Your task to perform on an android device: change keyboard looks Image 0: 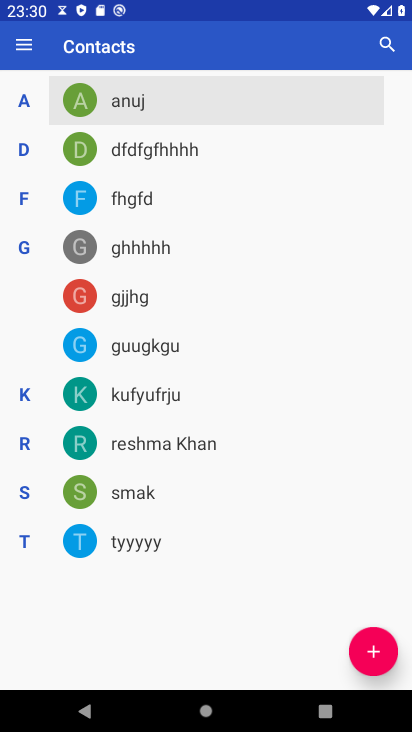
Step 0: press home button
Your task to perform on an android device: change keyboard looks Image 1: 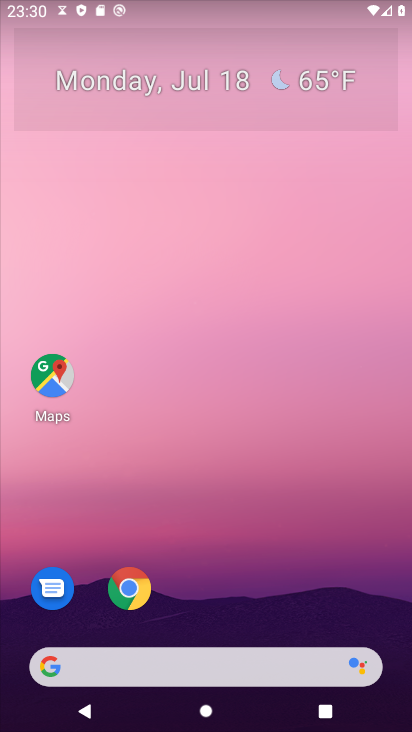
Step 1: drag from (253, 539) to (288, 0)
Your task to perform on an android device: change keyboard looks Image 2: 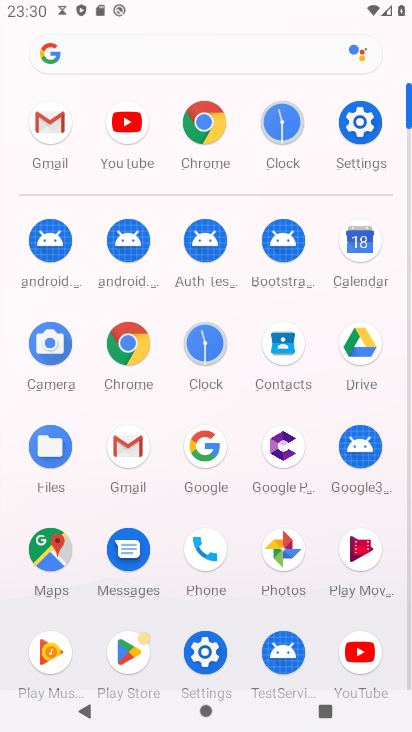
Step 2: click (369, 115)
Your task to perform on an android device: change keyboard looks Image 3: 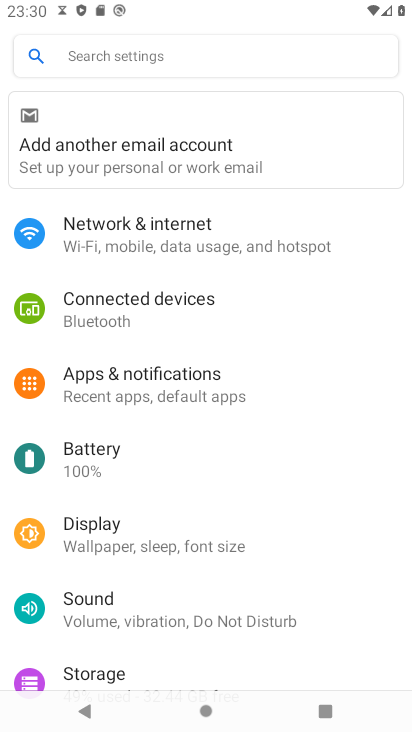
Step 3: drag from (151, 648) to (280, 136)
Your task to perform on an android device: change keyboard looks Image 4: 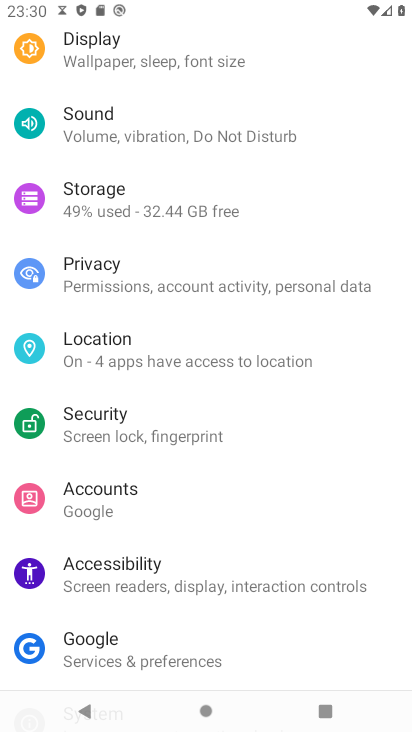
Step 4: drag from (161, 614) to (233, 79)
Your task to perform on an android device: change keyboard looks Image 5: 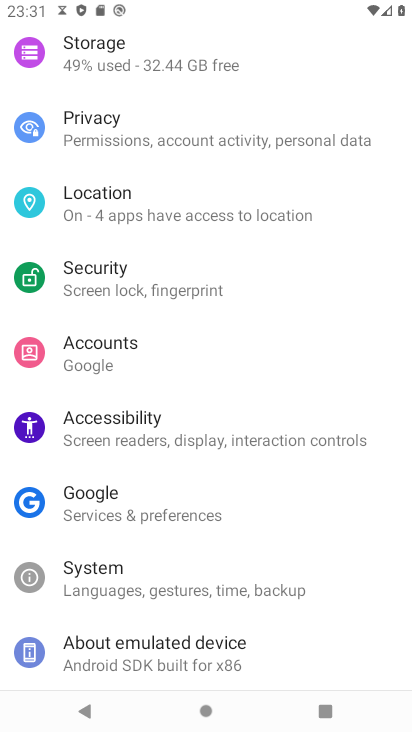
Step 5: click (138, 589)
Your task to perform on an android device: change keyboard looks Image 6: 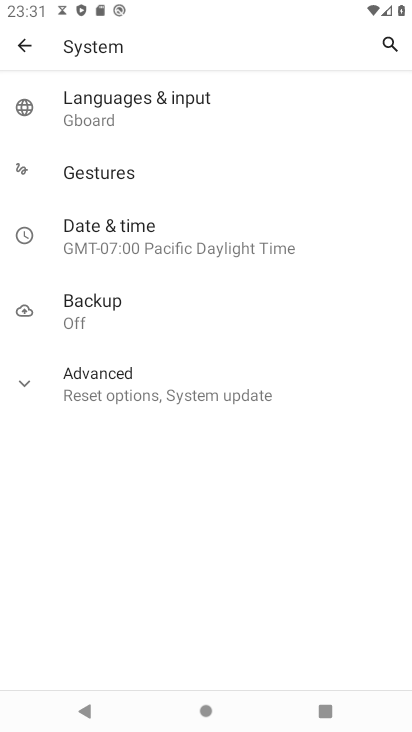
Step 6: click (152, 101)
Your task to perform on an android device: change keyboard looks Image 7: 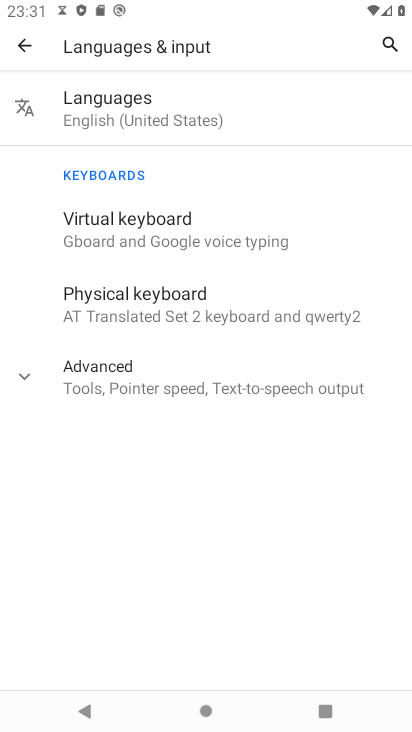
Step 7: click (137, 231)
Your task to perform on an android device: change keyboard looks Image 8: 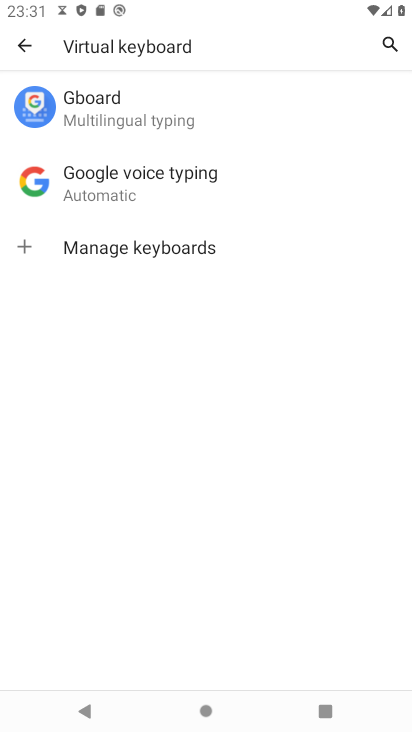
Step 8: click (114, 96)
Your task to perform on an android device: change keyboard looks Image 9: 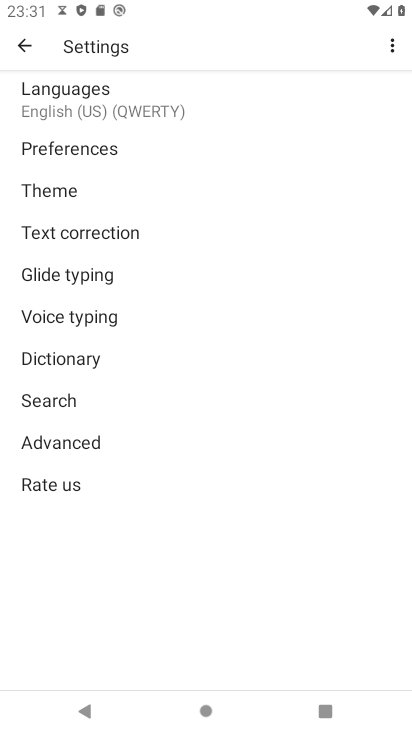
Step 9: click (61, 191)
Your task to perform on an android device: change keyboard looks Image 10: 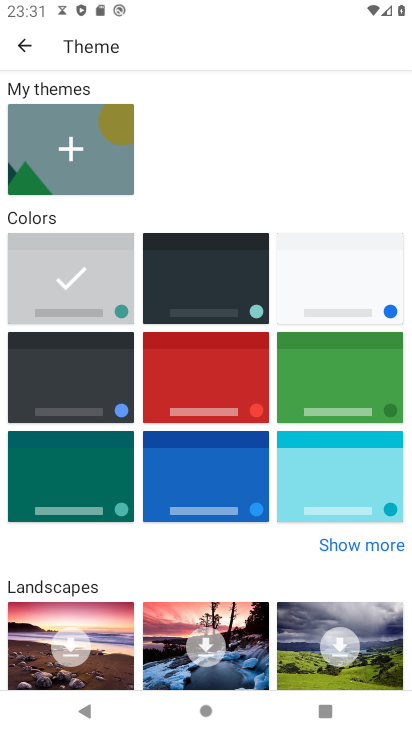
Step 10: click (354, 405)
Your task to perform on an android device: change keyboard looks Image 11: 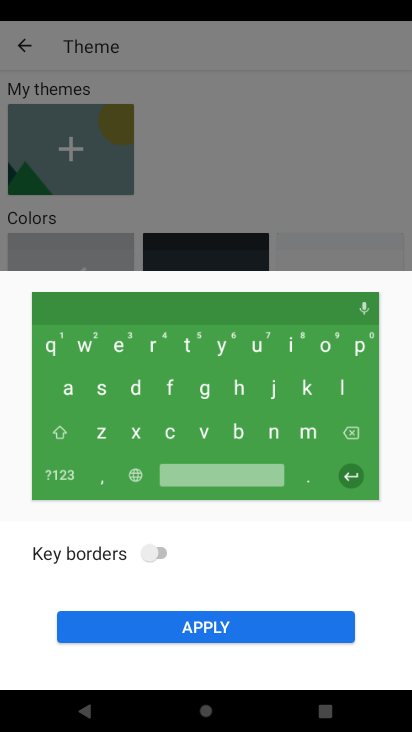
Step 11: click (235, 624)
Your task to perform on an android device: change keyboard looks Image 12: 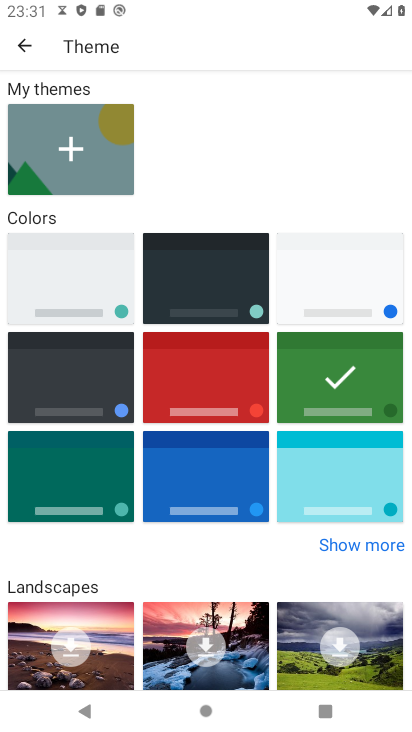
Step 12: task complete